Your task to perform on an android device: Open Google Maps Image 0: 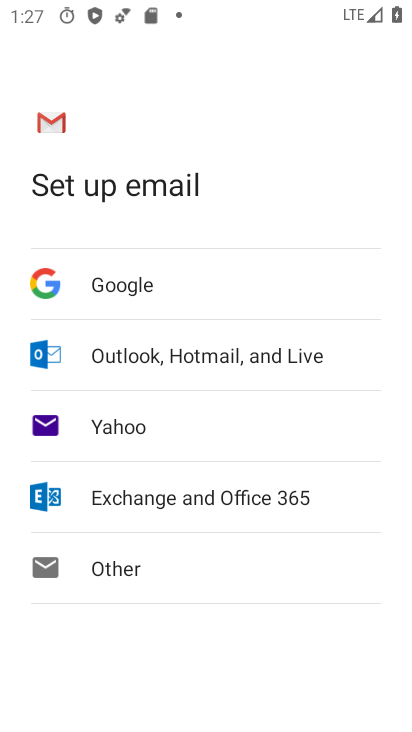
Step 0: press home button
Your task to perform on an android device: Open Google Maps Image 1: 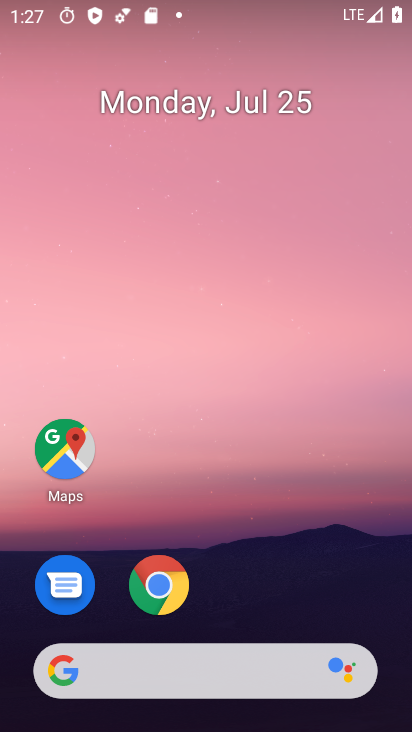
Step 1: click (62, 456)
Your task to perform on an android device: Open Google Maps Image 2: 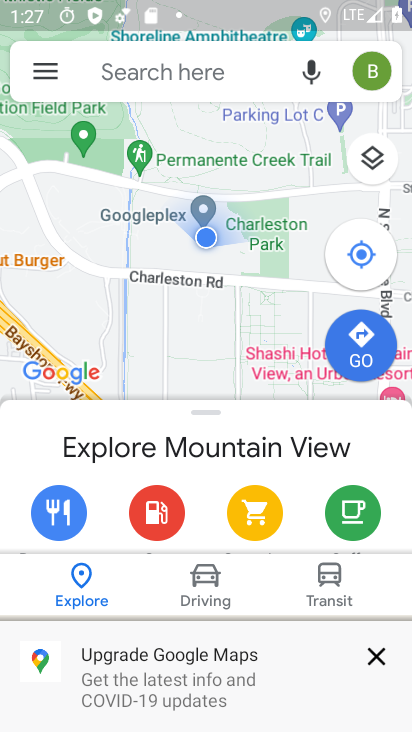
Step 2: task complete